Your task to perform on an android device: Search for logitech g pro on walmart.com, select the first entry, add it to the cart, then select checkout. Image 0: 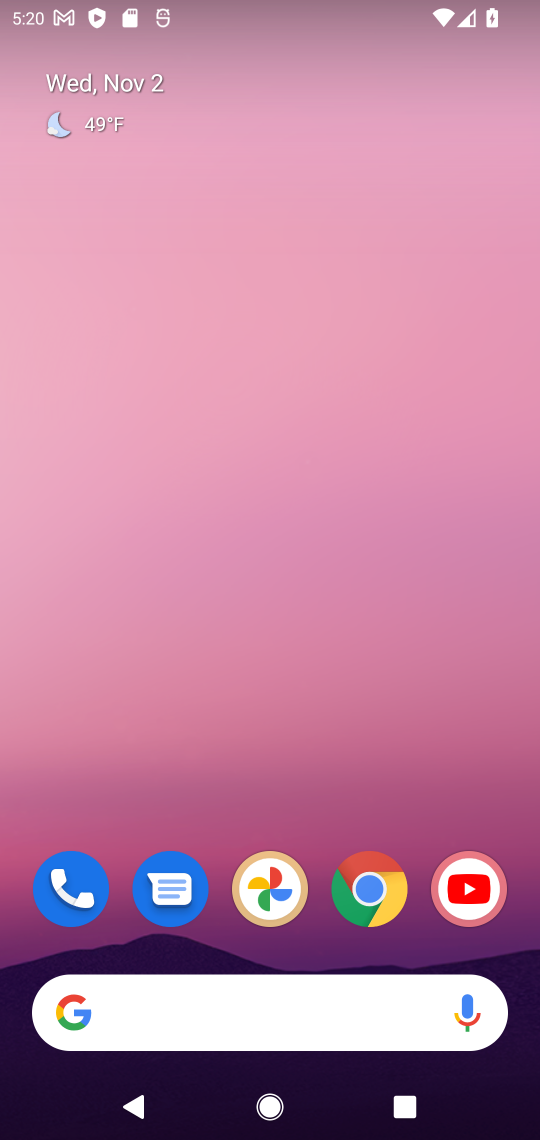
Step 0: click (356, 893)
Your task to perform on an android device: Search for logitech g pro on walmart.com, select the first entry, add it to the cart, then select checkout. Image 1: 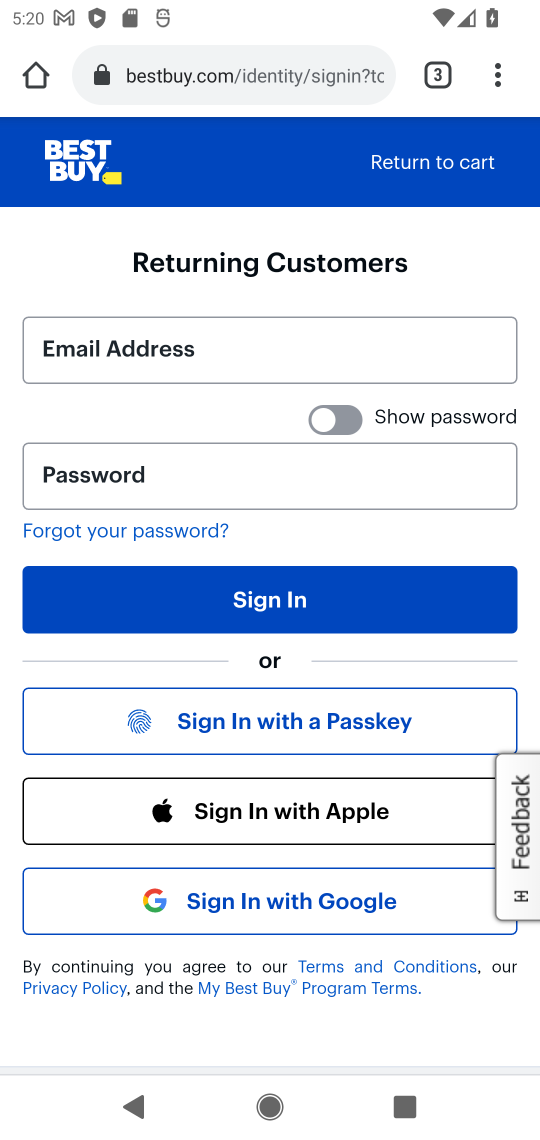
Step 1: click (276, 67)
Your task to perform on an android device: Search for logitech g pro on walmart.com, select the first entry, add it to the cart, then select checkout. Image 2: 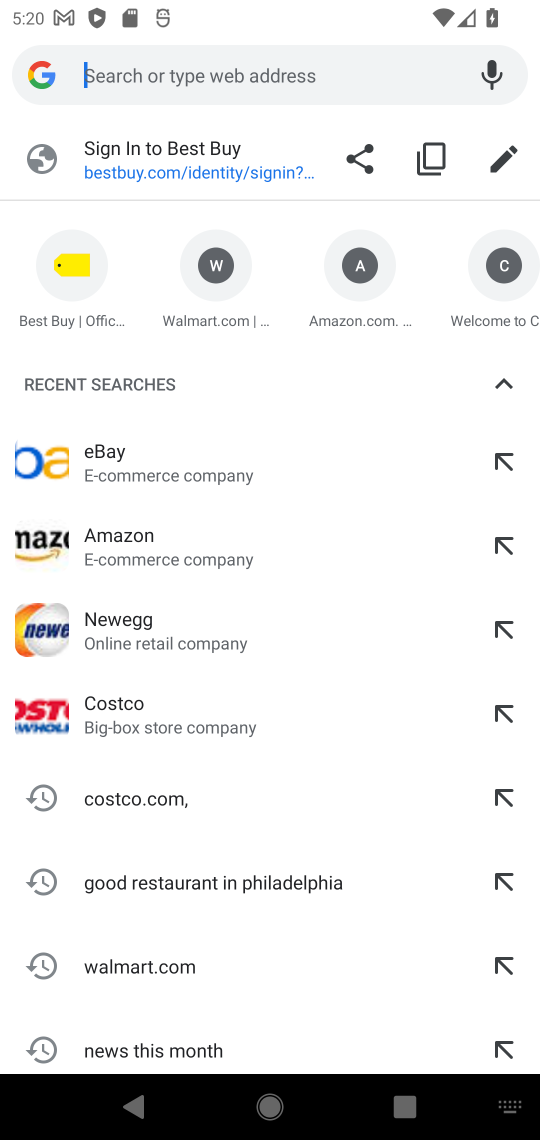
Step 2: click (214, 283)
Your task to perform on an android device: Search for logitech g pro on walmart.com, select the first entry, add it to the cart, then select checkout. Image 3: 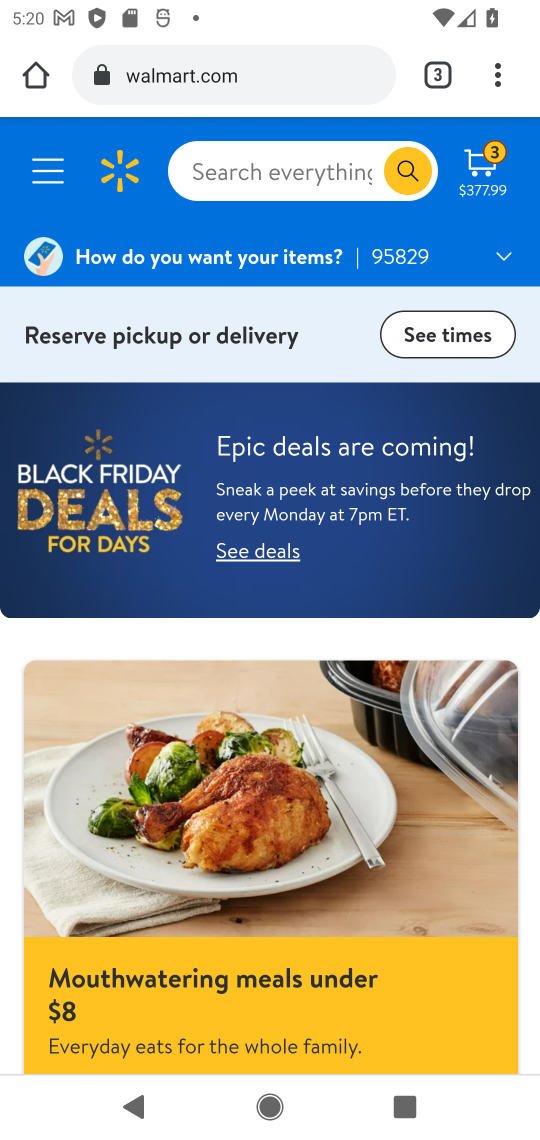
Step 3: click (300, 175)
Your task to perform on an android device: Search for logitech g pro on walmart.com, select the first entry, add it to the cart, then select checkout. Image 4: 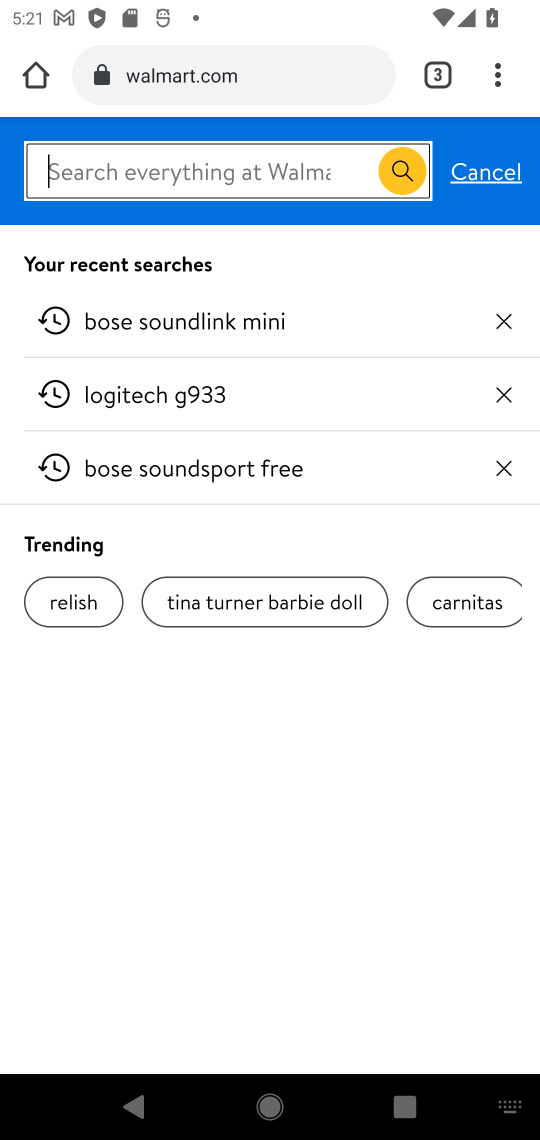
Step 4: type "logitech g pro"
Your task to perform on an android device: Search for logitech g pro on walmart.com, select the first entry, add it to the cart, then select checkout. Image 5: 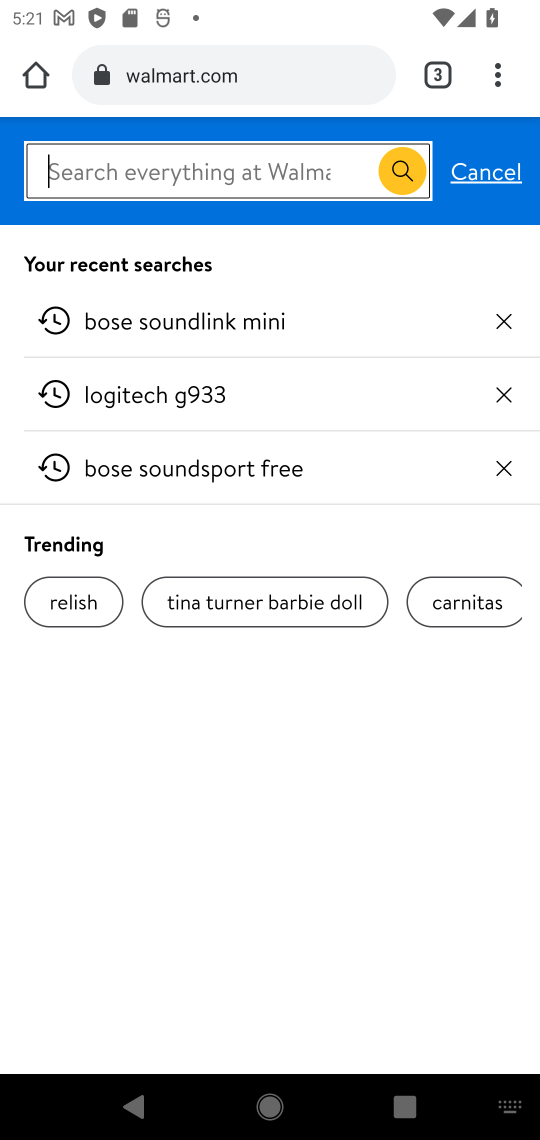
Step 5: press enter
Your task to perform on an android device: Search for logitech g pro on walmart.com, select the first entry, add it to the cart, then select checkout. Image 6: 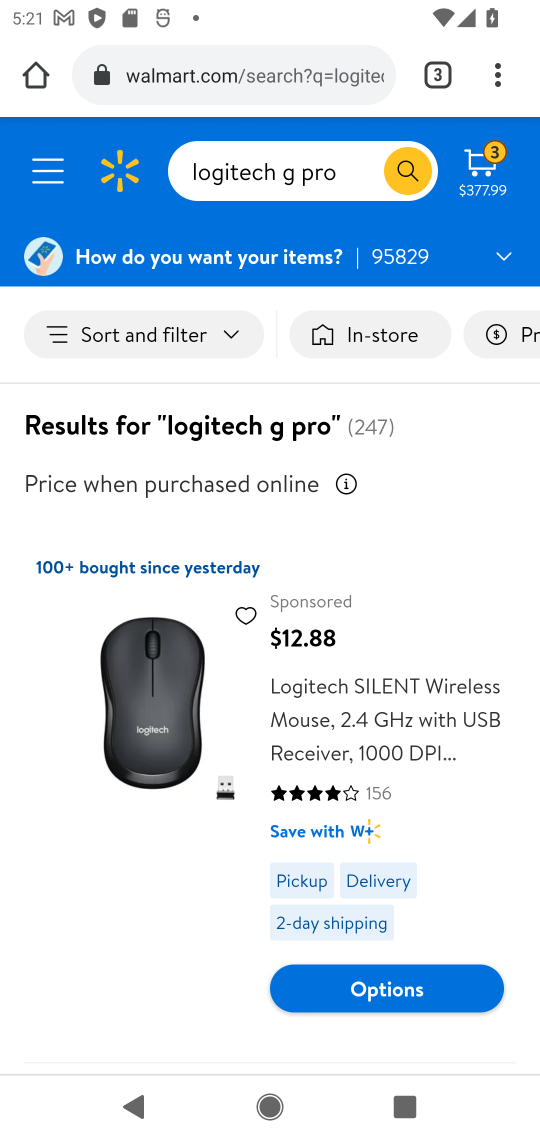
Step 6: click (359, 727)
Your task to perform on an android device: Search for logitech g pro on walmart.com, select the first entry, add it to the cart, then select checkout. Image 7: 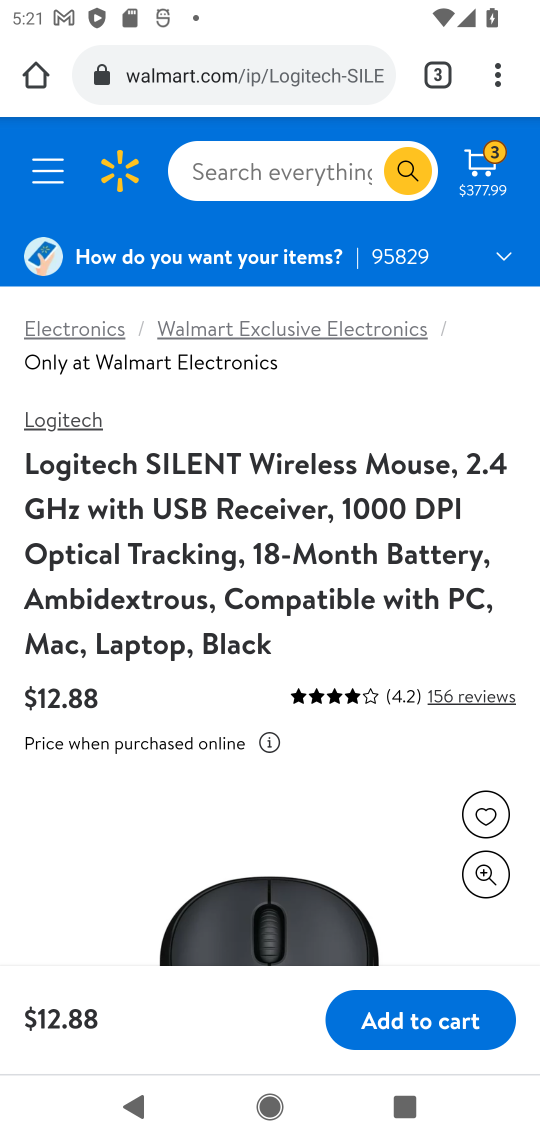
Step 7: click (423, 1030)
Your task to perform on an android device: Search for logitech g pro on walmart.com, select the first entry, add it to the cart, then select checkout. Image 8: 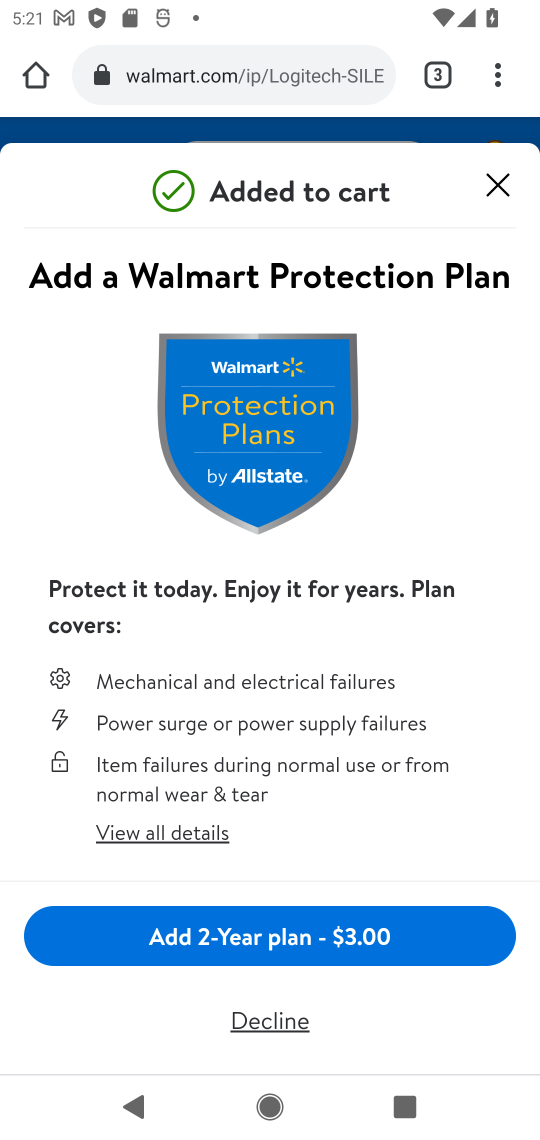
Step 8: click (497, 179)
Your task to perform on an android device: Search for logitech g pro on walmart.com, select the first entry, add it to the cart, then select checkout. Image 9: 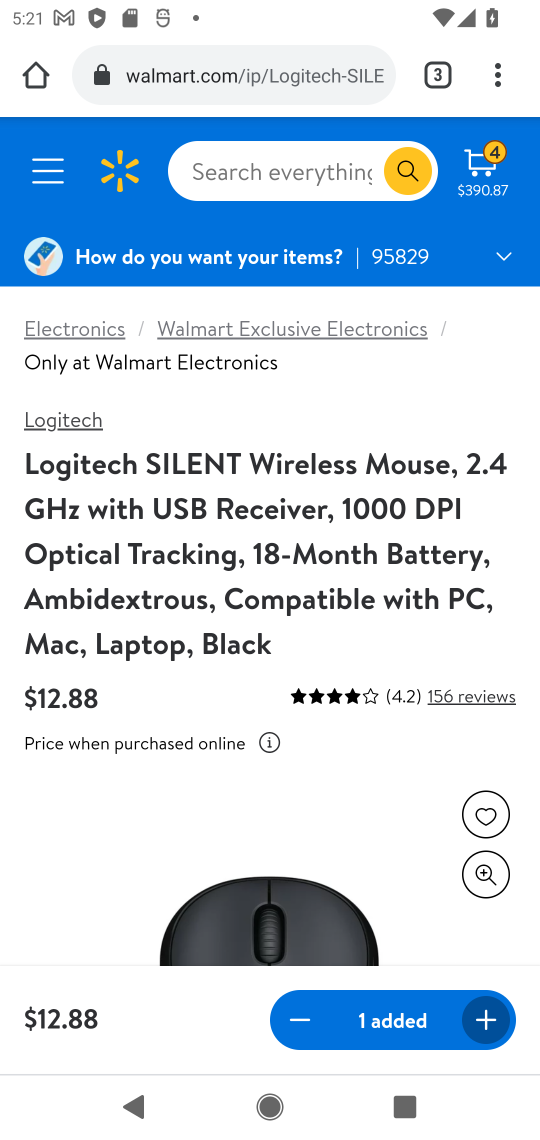
Step 9: task complete